Your task to perform on an android device: Show the shopping cart on costco. Search for "razer kraken" on costco, select the first entry, add it to the cart, then select checkout. Image 0: 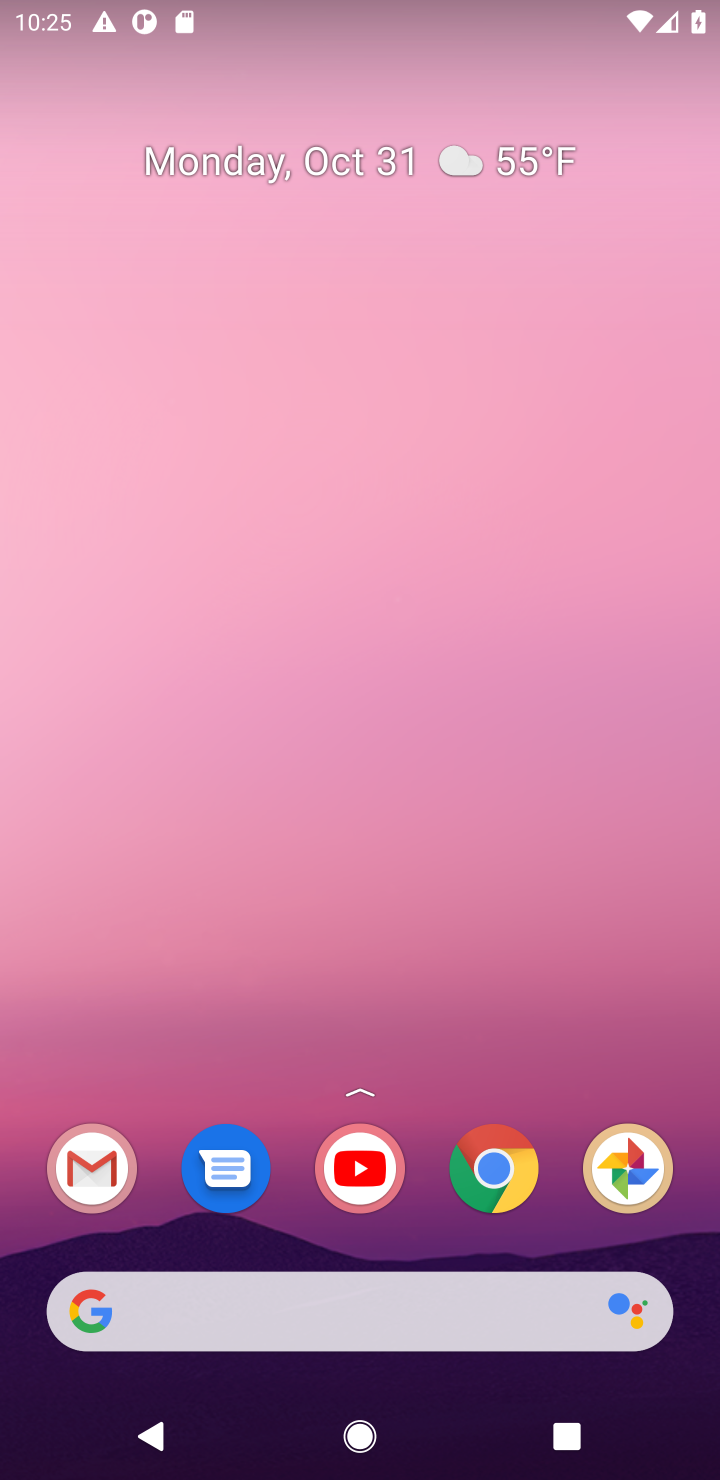
Step 0: click (493, 1166)
Your task to perform on an android device: Show the shopping cart on costco. Search for "razer kraken" on costco, select the first entry, add it to the cart, then select checkout. Image 1: 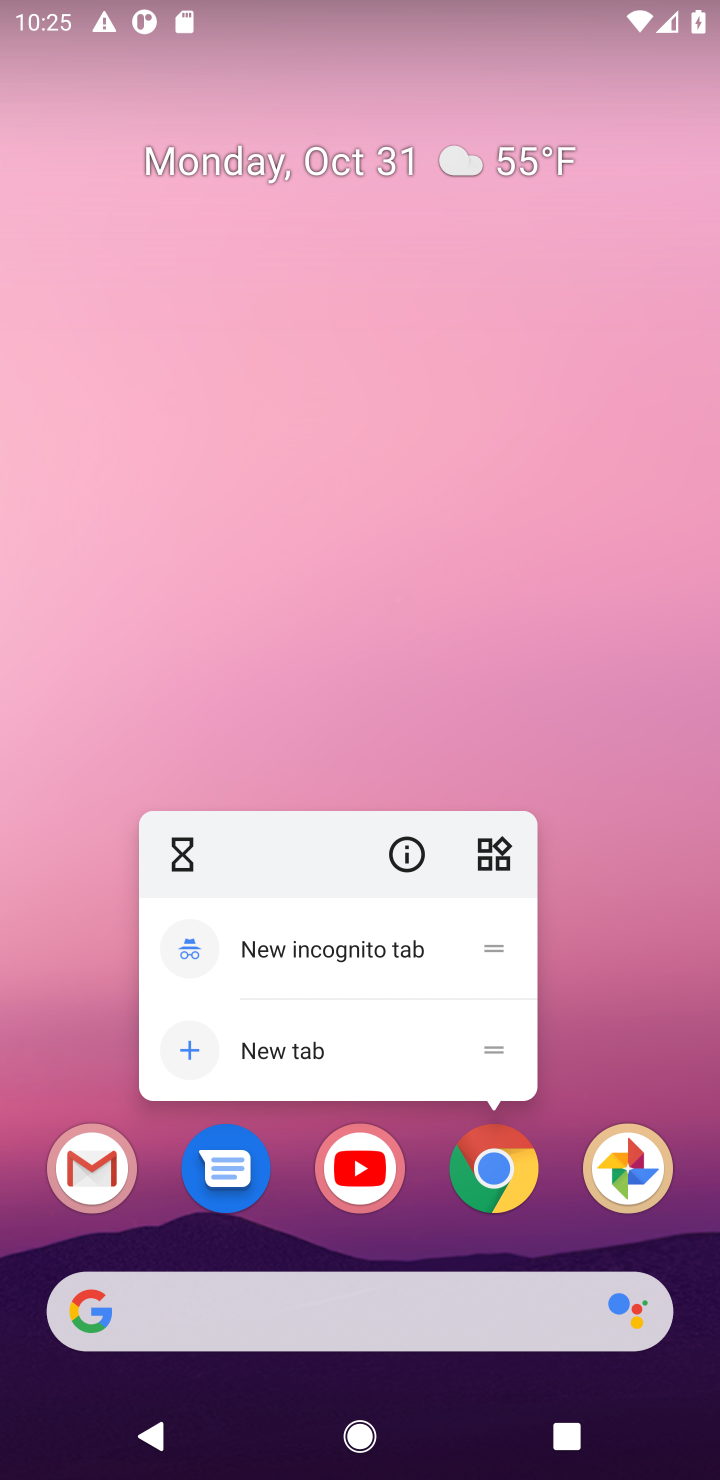
Step 1: click (492, 1176)
Your task to perform on an android device: Show the shopping cart on costco. Search for "razer kraken" on costco, select the first entry, add it to the cart, then select checkout. Image 2: 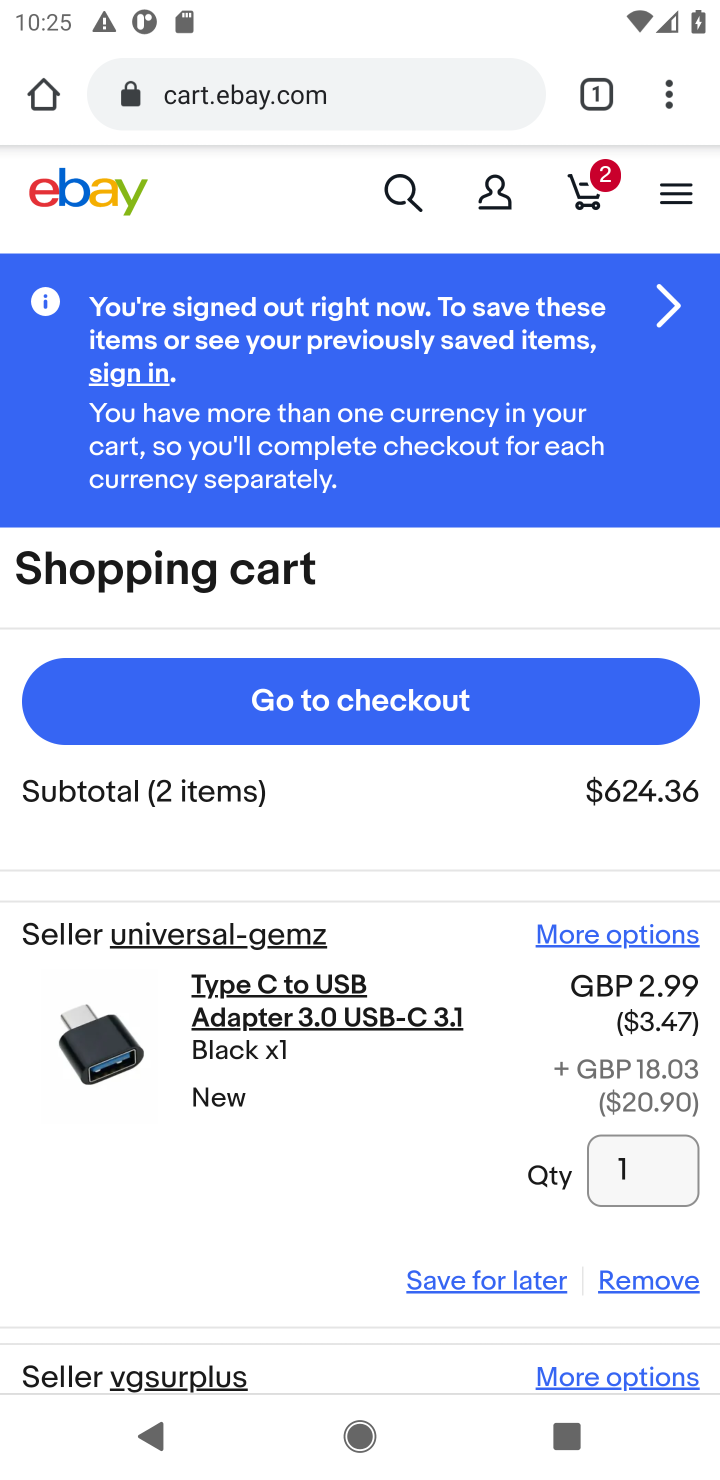
Step 2: click (312, 99)
Your task to perform on an android device: Show the shopping cart on costco. Search for "razer kraken" on costco, select the first entry, add it to the cart, then select checkout. Image 3: 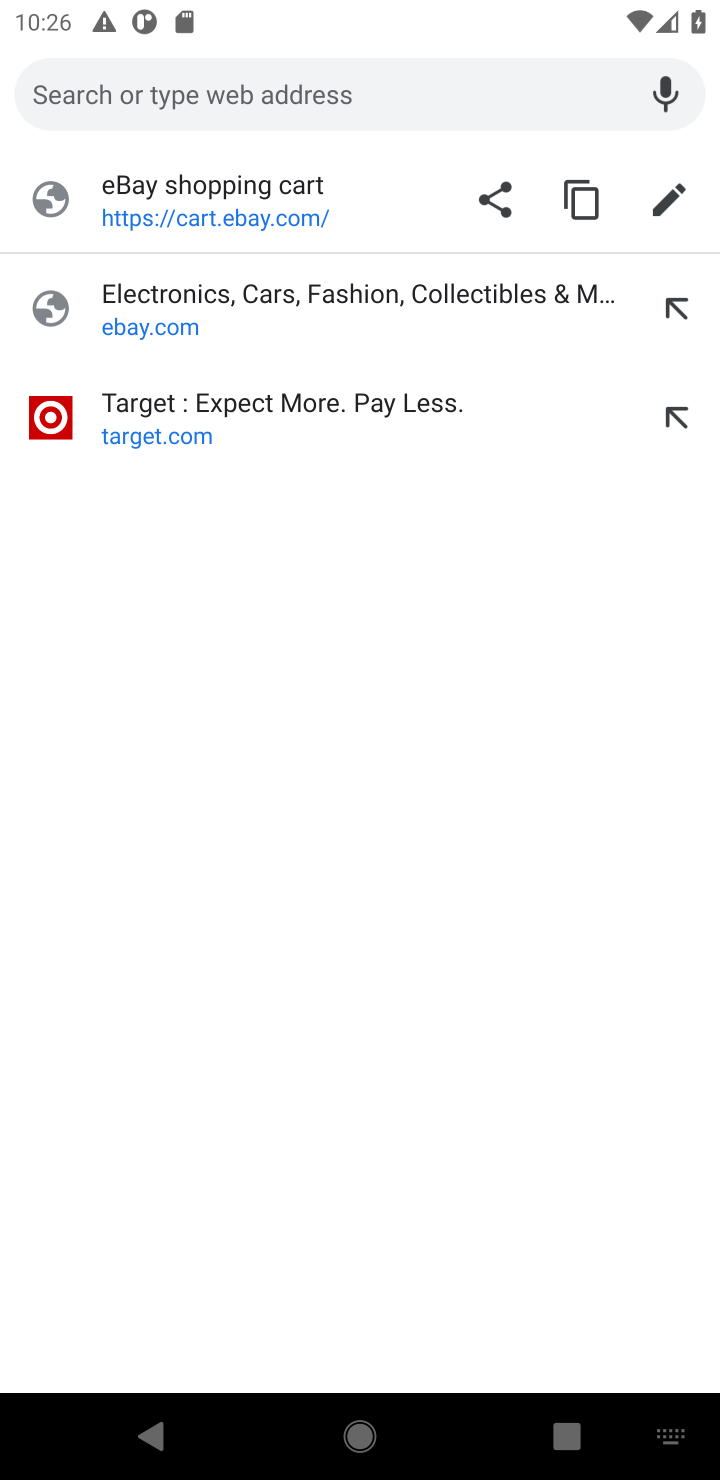
Step 3: click (121, 92)
Your task to perform on an android device: Show the shopping cart on costco. Search for "razer kraken" on costco, select the first entry, add it to the cart, then select checkout. Image 4: 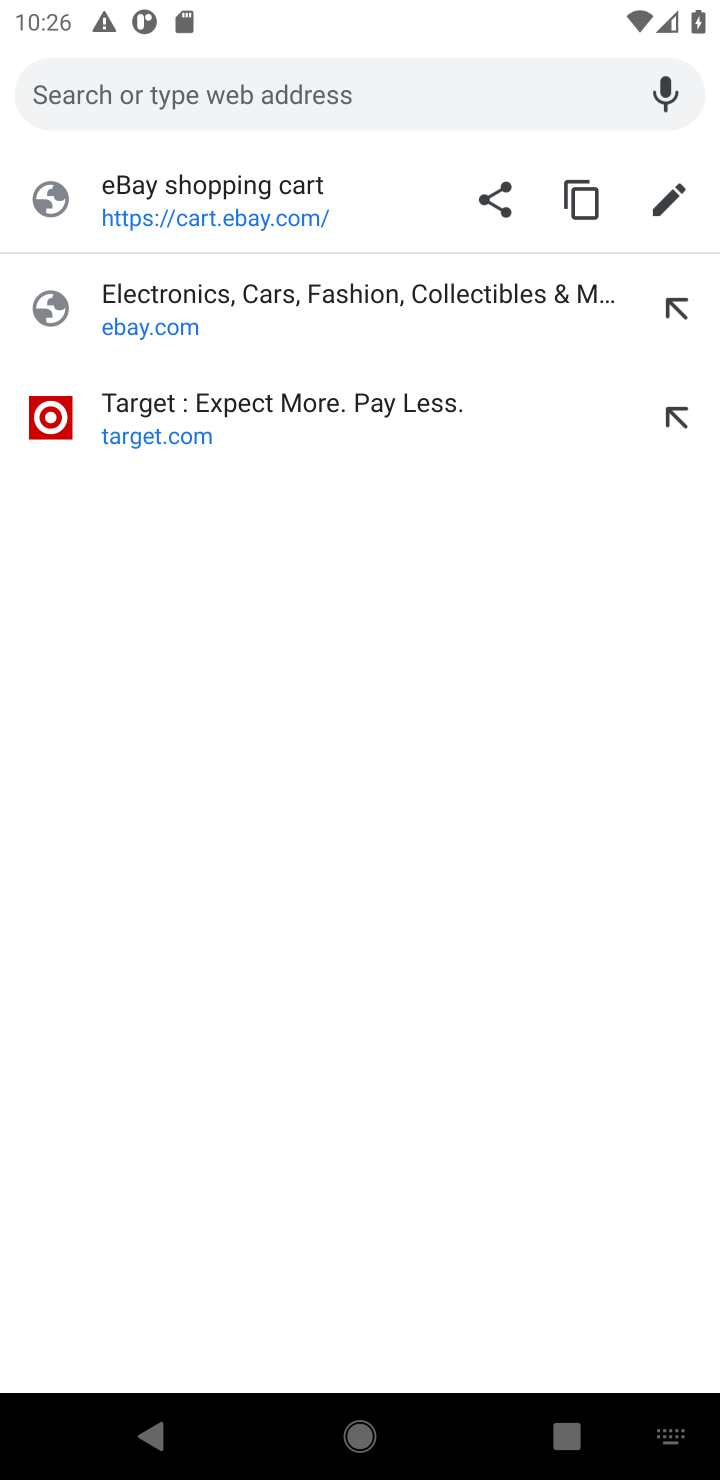
Step 4: type "costco"
Your task to perform on an android device: Show the shopping cart on costco. Search for "razer kraken" on costco, select the first entry, add it to the cart, then select checkout. Image 5: 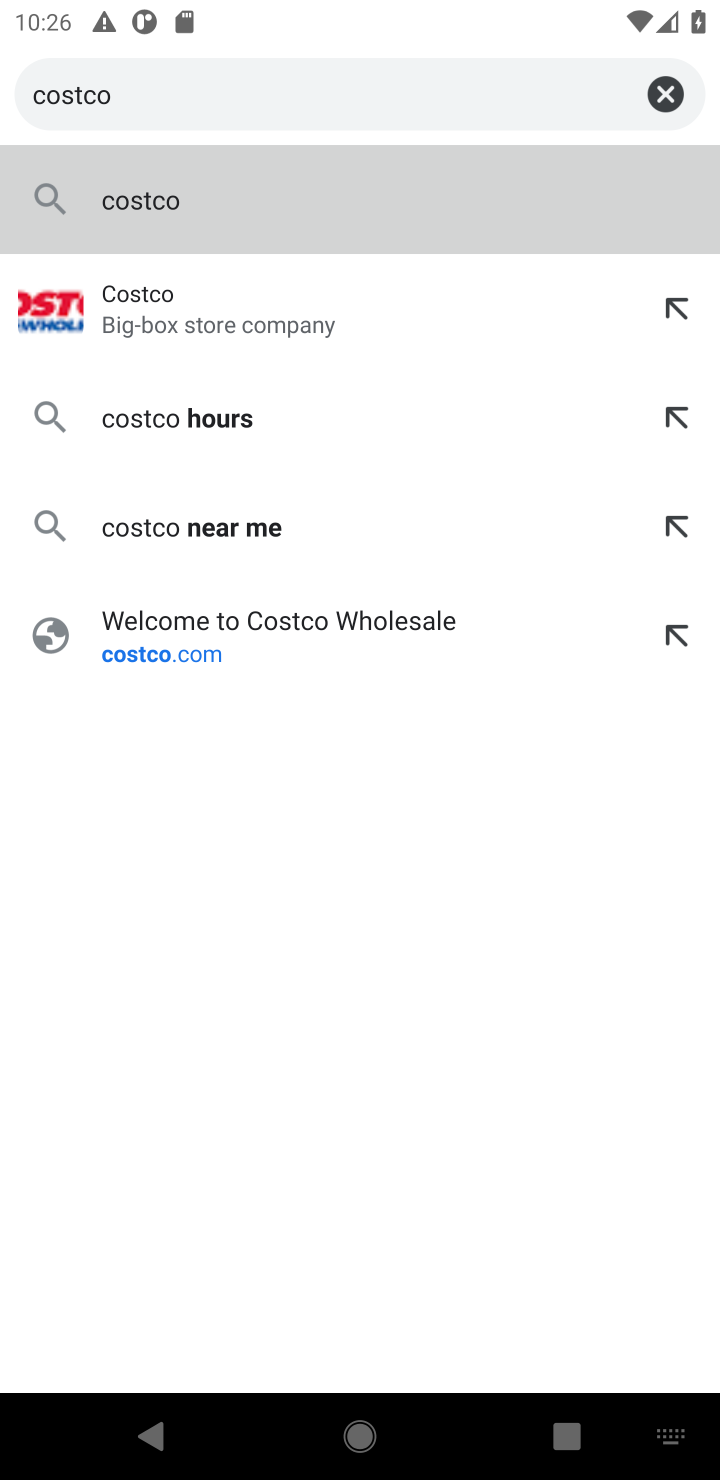
Step 5: press enter
Your task to perform on an android device: Show the shopping cart on costco. Search for "razer kraken" on costco, select the first entry, add it to the cart, then select checkout. Image 6: 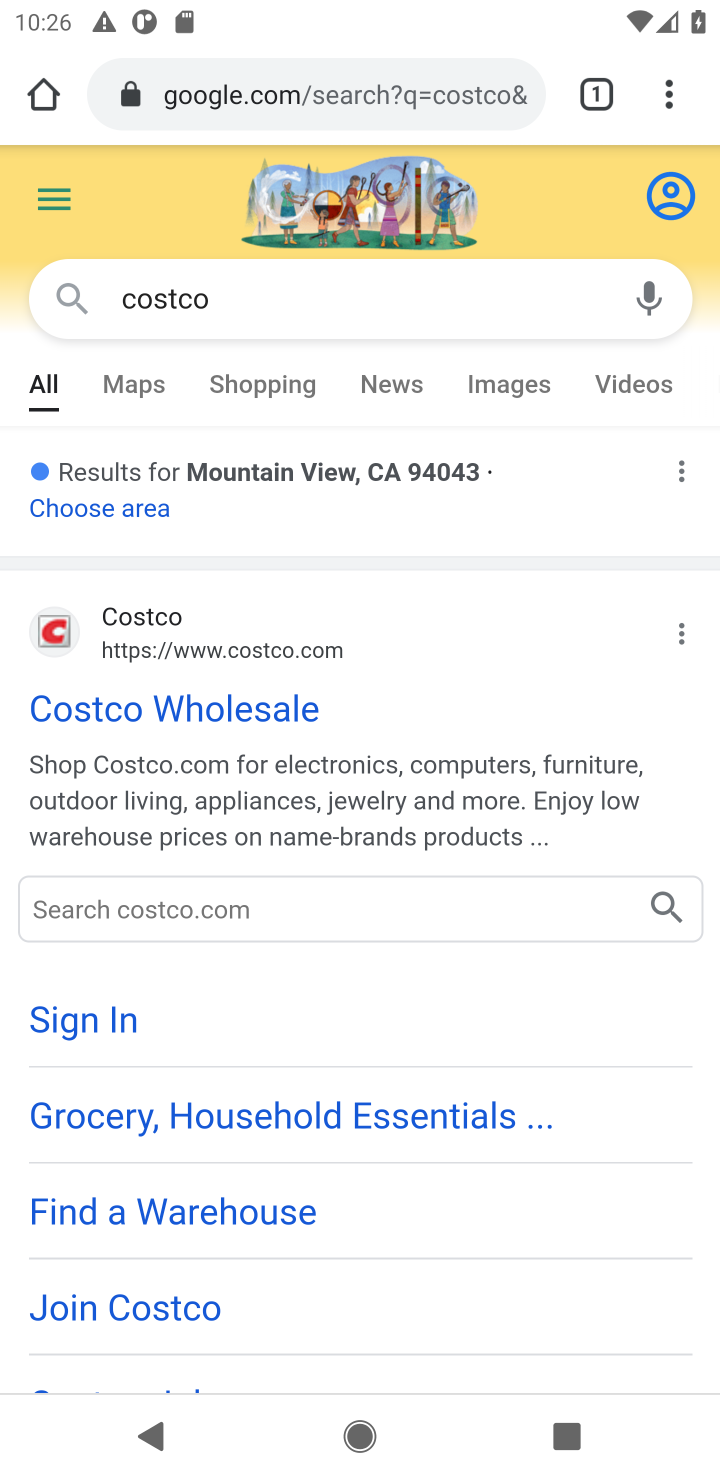
Step 6: click (282, 702)
Your task to perform on an android device: Show the shopping cart on costco. Search for "razer kraken" on costco, select the first entry, add it to the cart, then select checkout. Image 7: 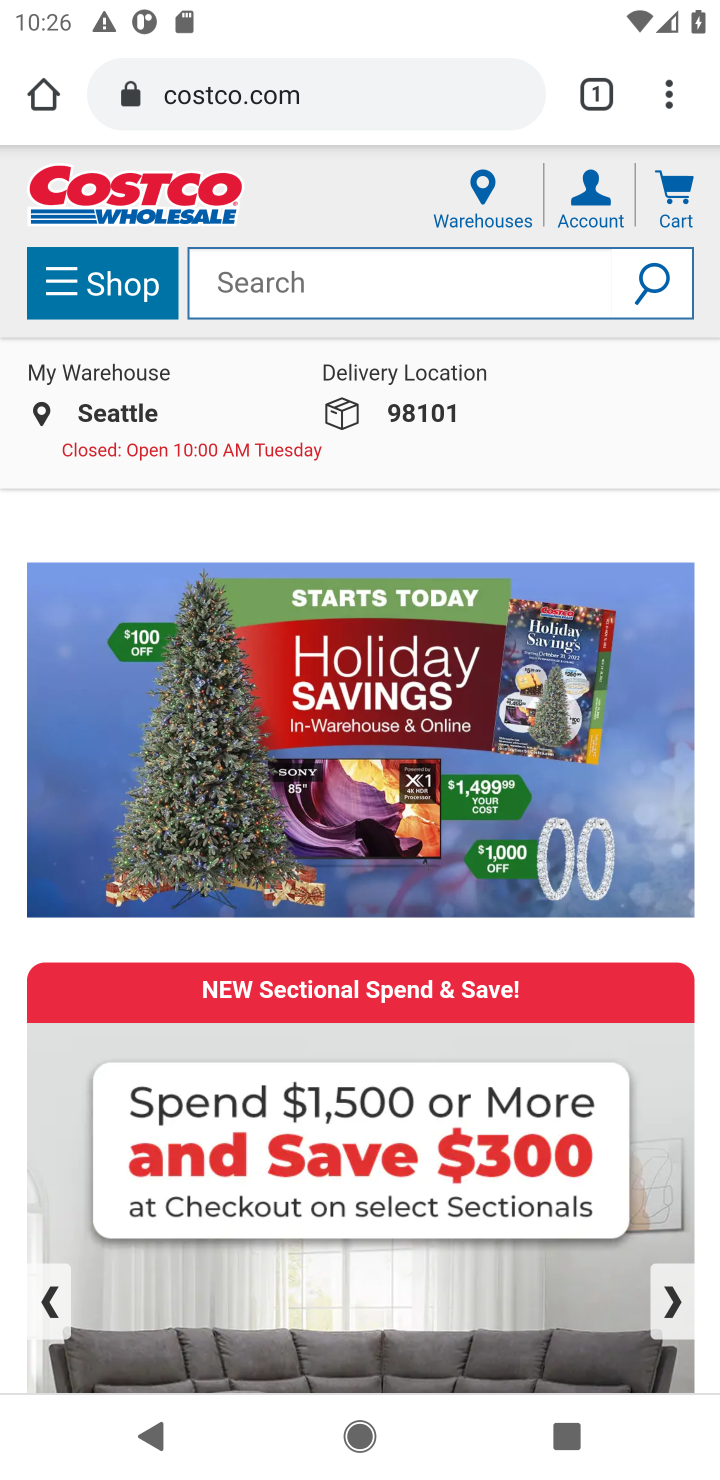
Step 7: click (291, 277)
Your task to perform on an android device: Show the shopping cart on costco. Search for "razer kraken" on costco, select the first entry, add it to the cart, then select checkout. Image 8: 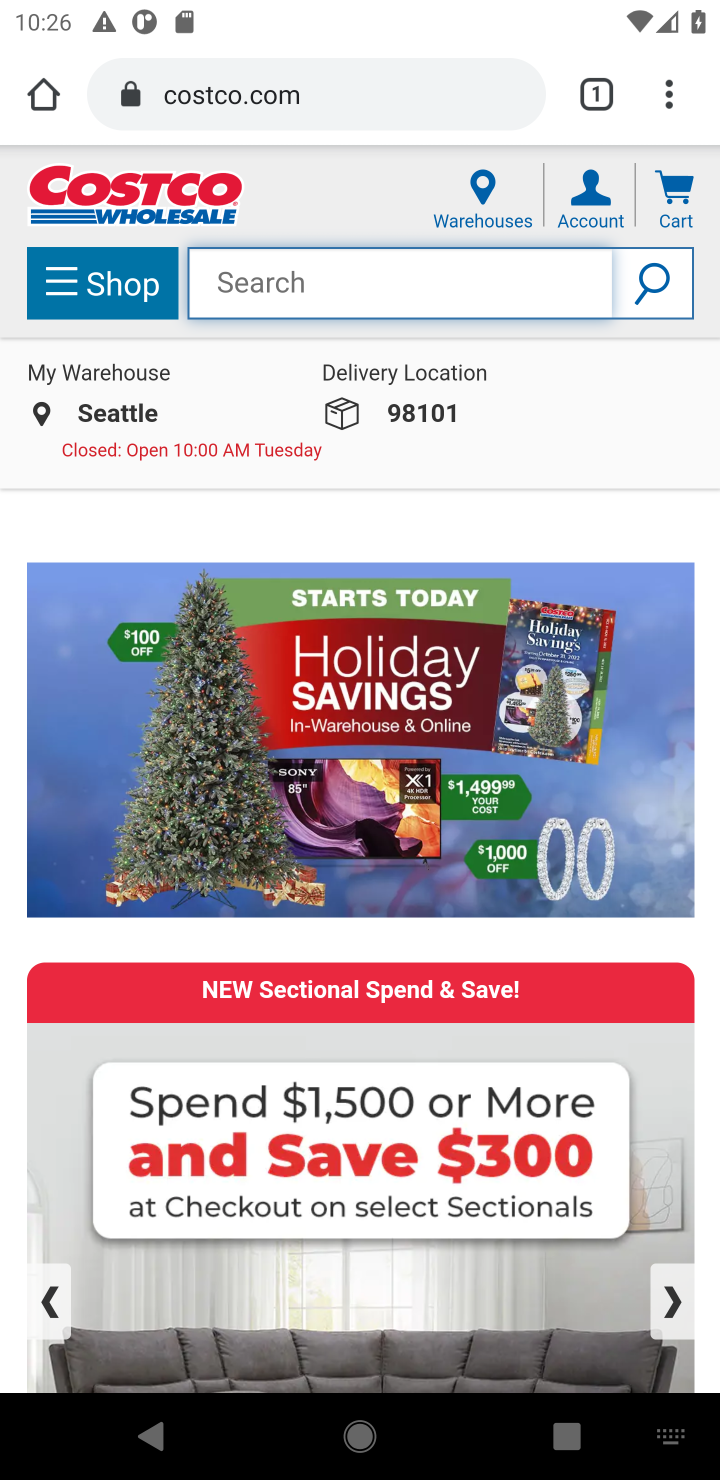
Step 8: click (677, 195)
Your task to perform on an android device: Show the shopping cart on costco. Search for "razer kraken" on costco, select the first entry, add it to the cart, then select checkout. Image 9: 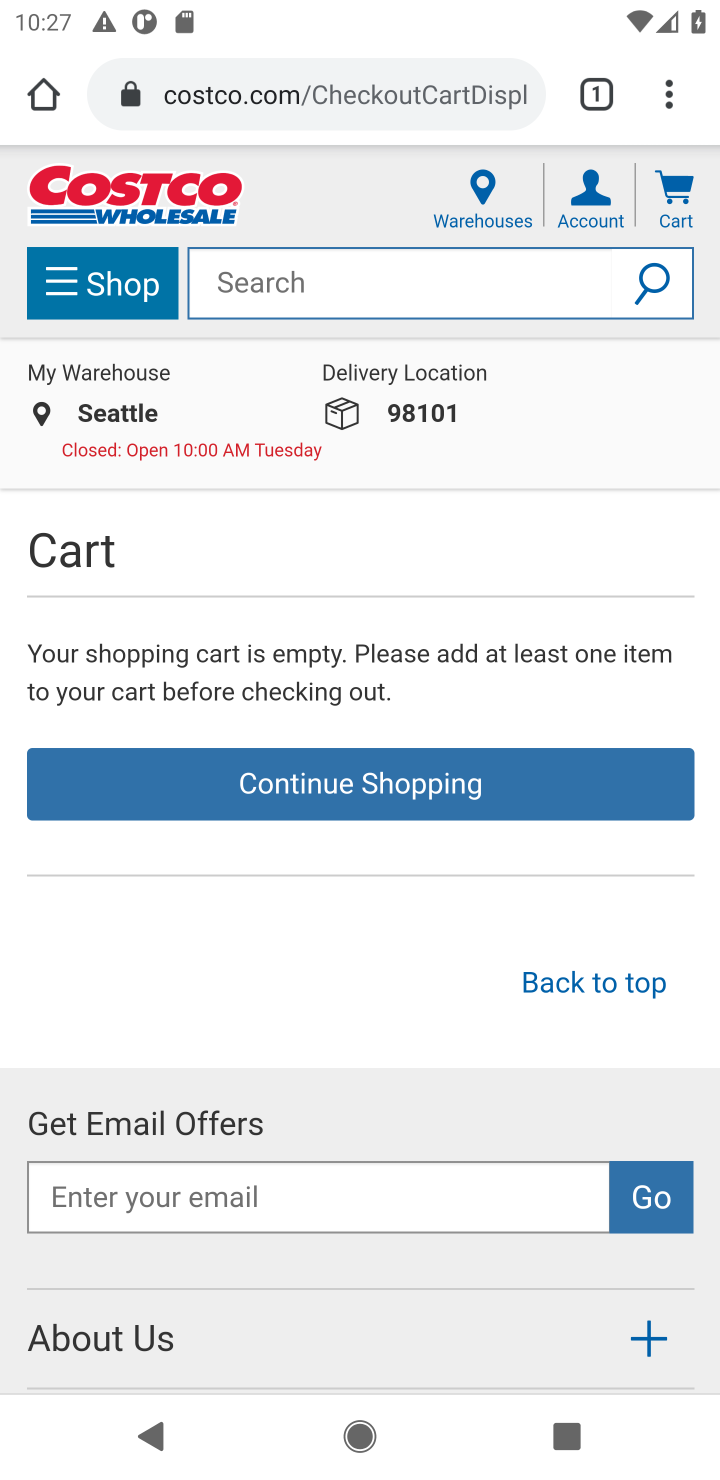
Step 9: click (401, 298)
Your task to perform on an android device: Show the shopping cart on costco. Search for "razer kraken" on costco, select the first entry, add it to the cart, then select checkout. Image 10: 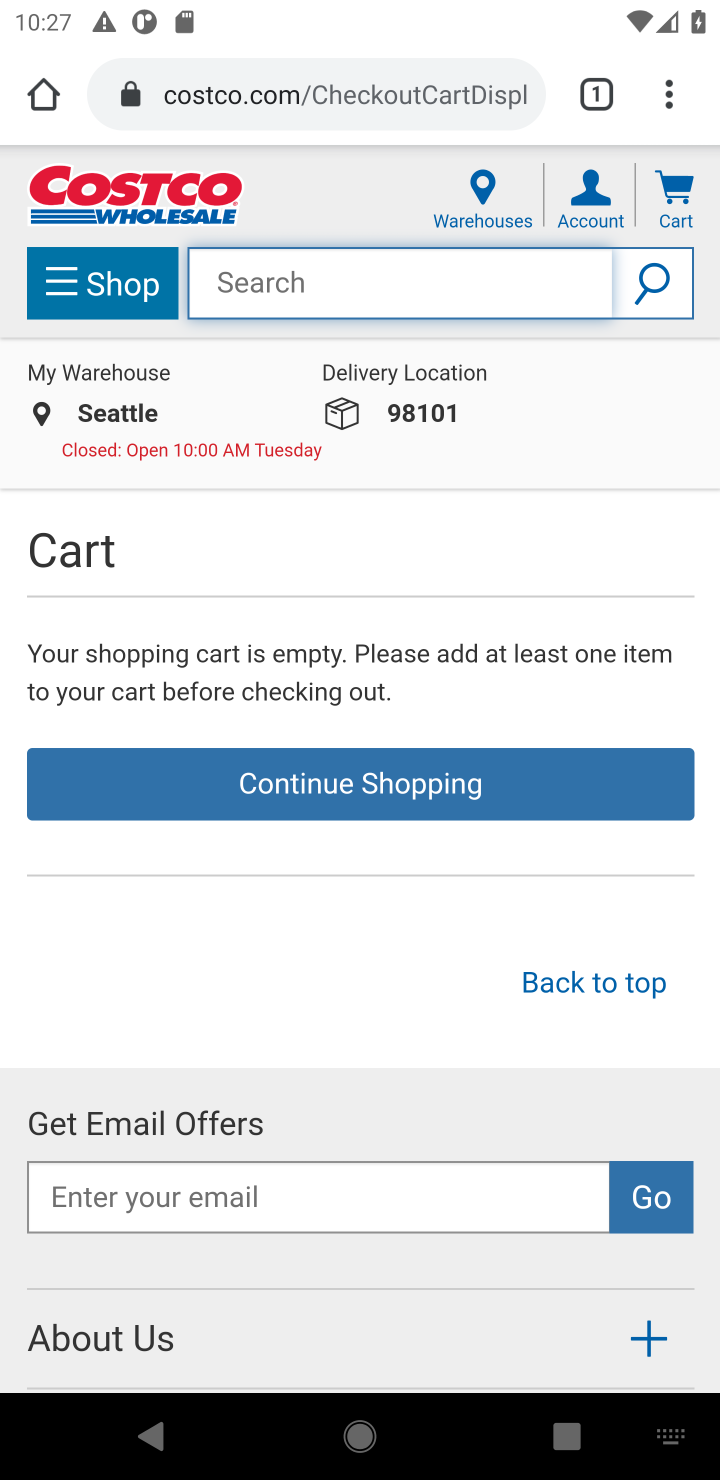
Step 10: type "razer kraken"
Your task to perform on an android device: Show the shopping cart on costco. Search for "razer kraken" on costco, select the first entry, add it to the cart, then select checkout. Image 11: 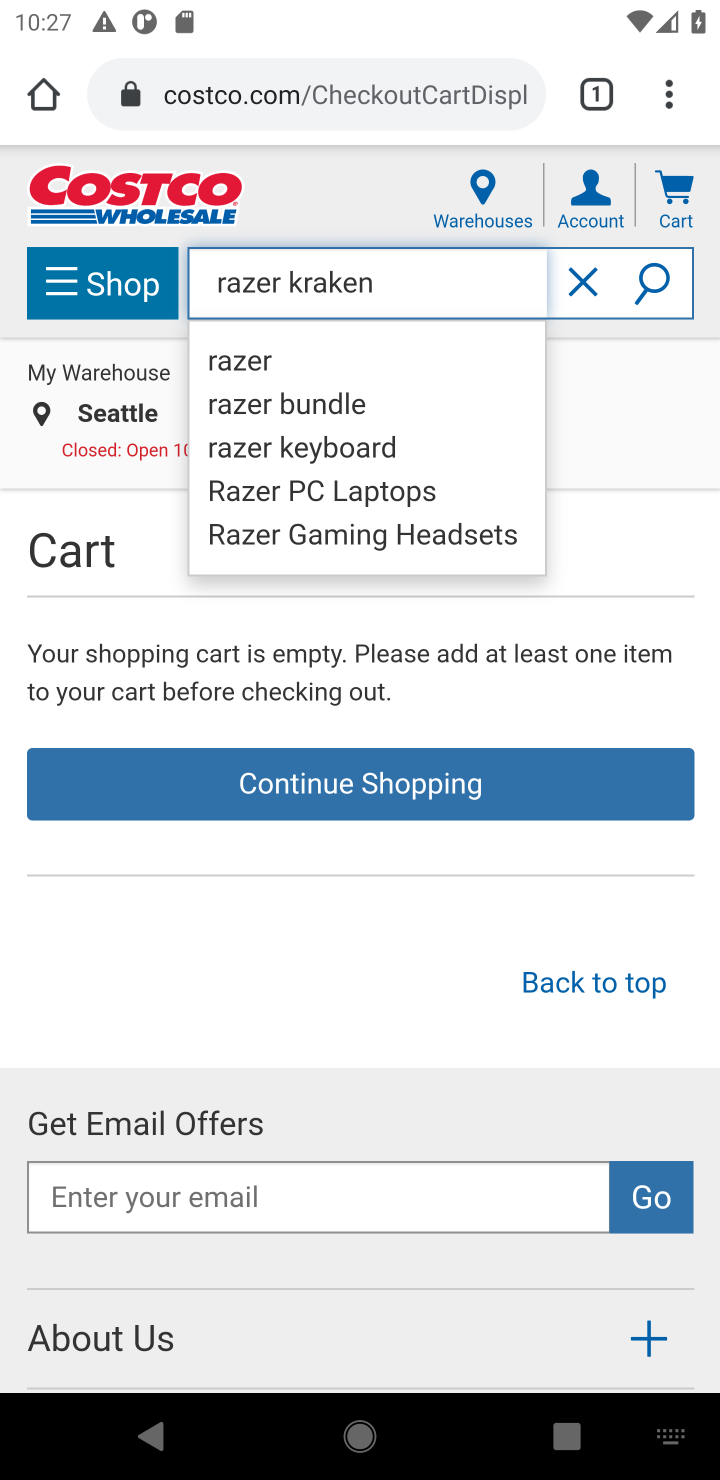
Step 11: press enter
Your task to perform on an android device: Show the shopping cart on costco. Search for "razer kraken" on costco, select the first entry, add it to the cart, then select checkout. Image 12: 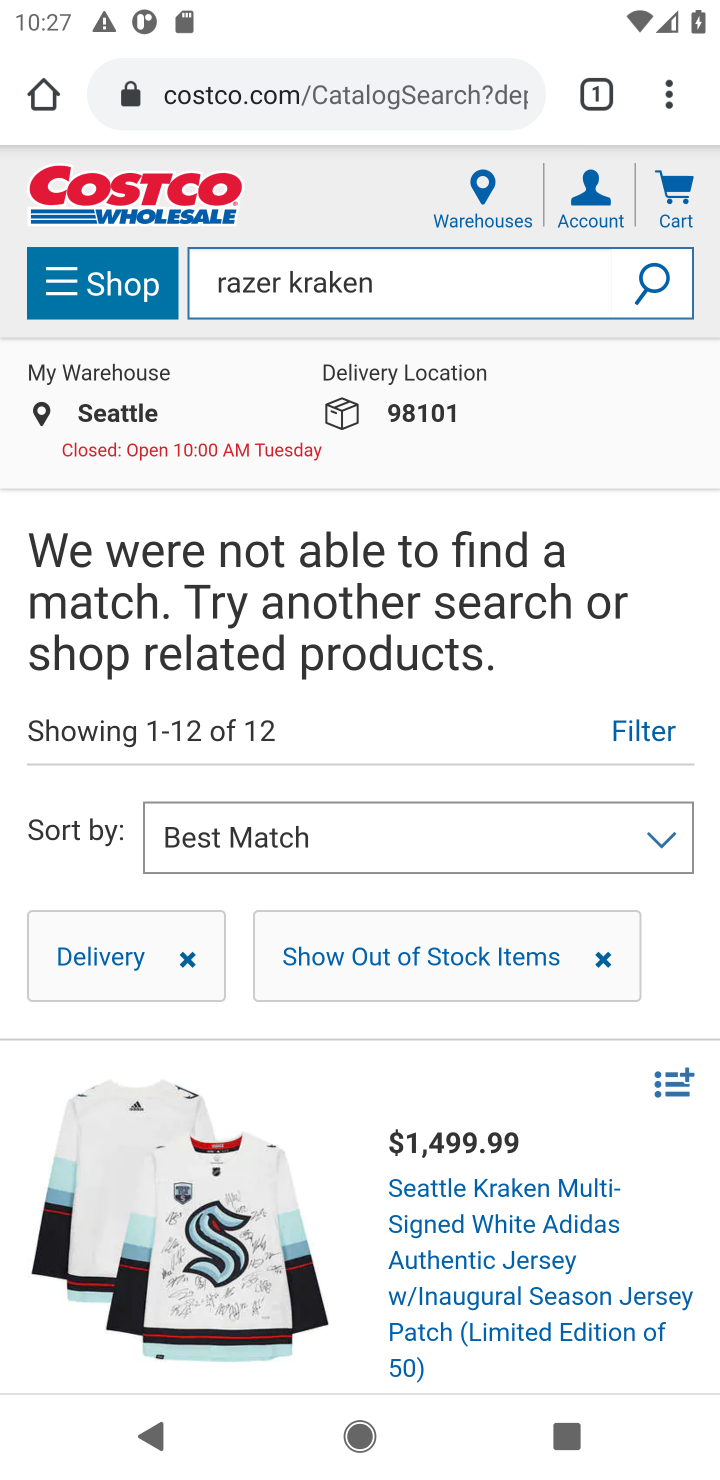
Step 12: task complete